Your task to perform on an android device: toggle sleep mode Image 0: 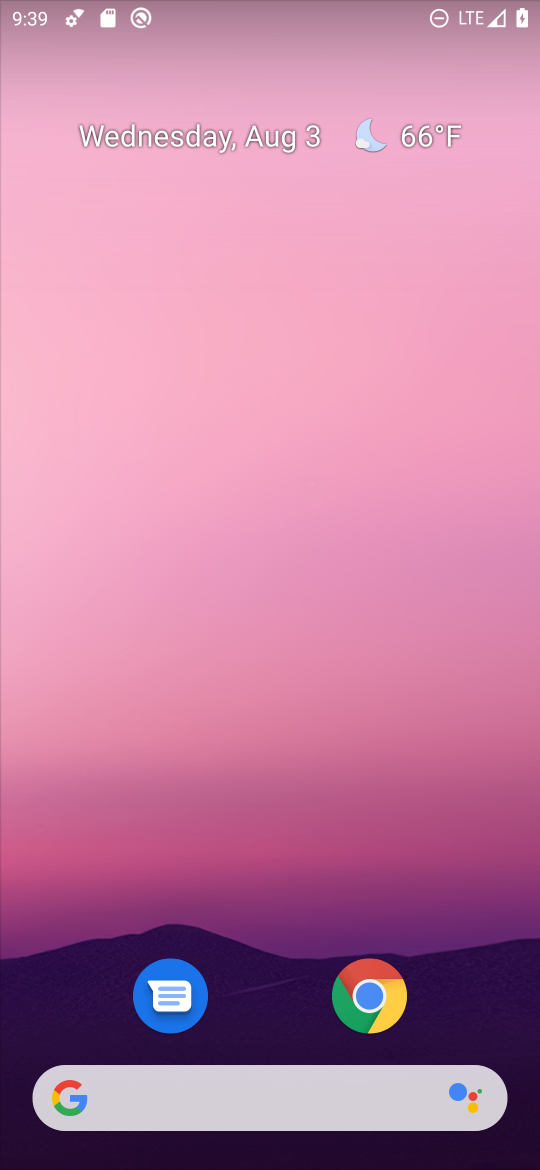
Step 0: drag from (313, 871) to (372, 16)
Your task to perform on an android device: toggle sleep mode Image 1: 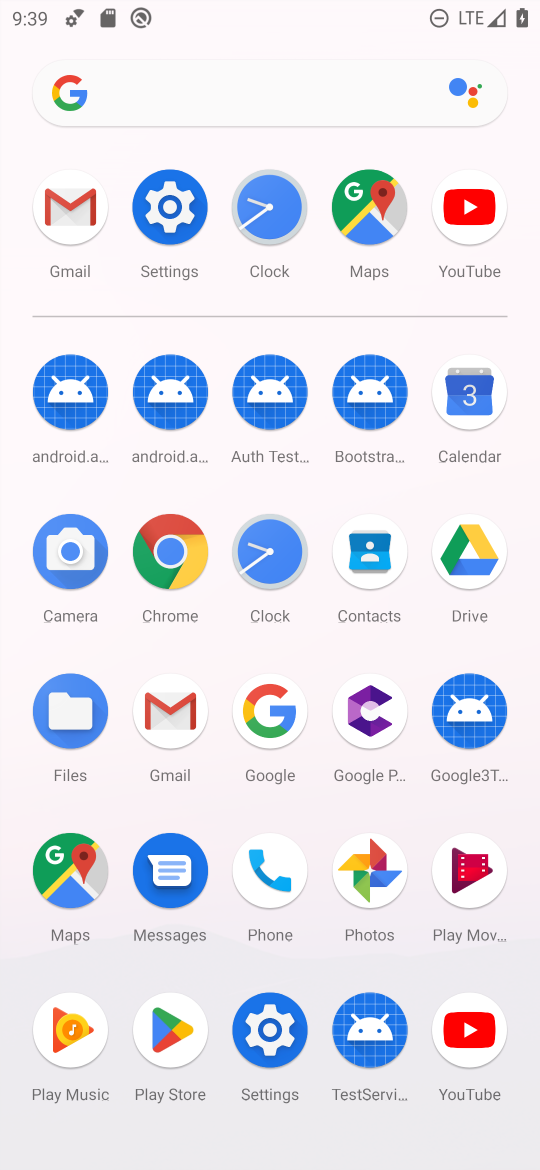
Step 1: click (169, 205)
Your task to perform on an android device: toggle sleep mode Image 2: 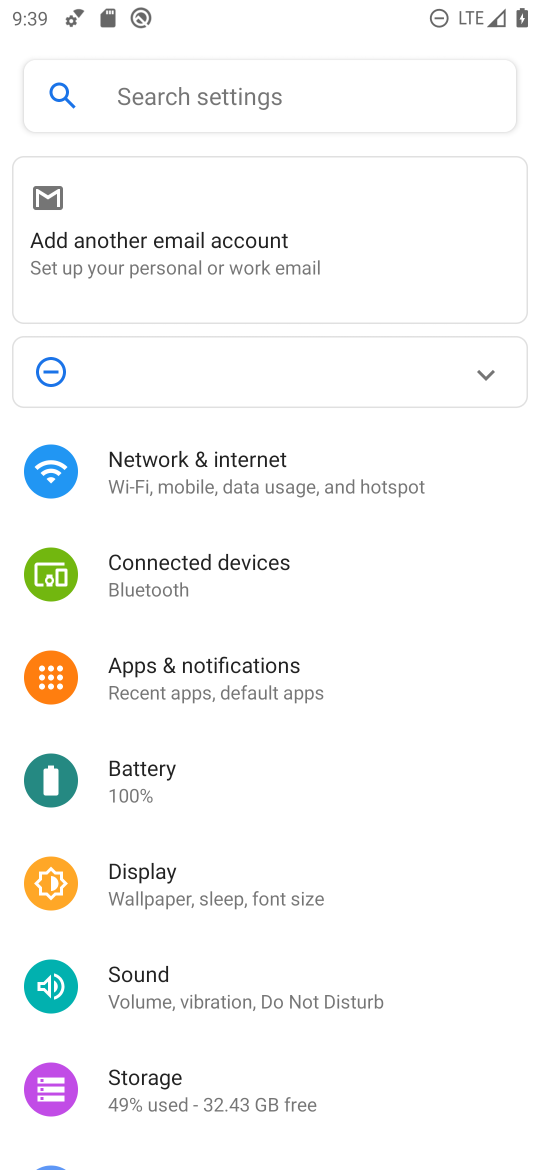
Step 2: click (178, 883)
Your task to perform on an android device: toggle sleep mode Image 3: 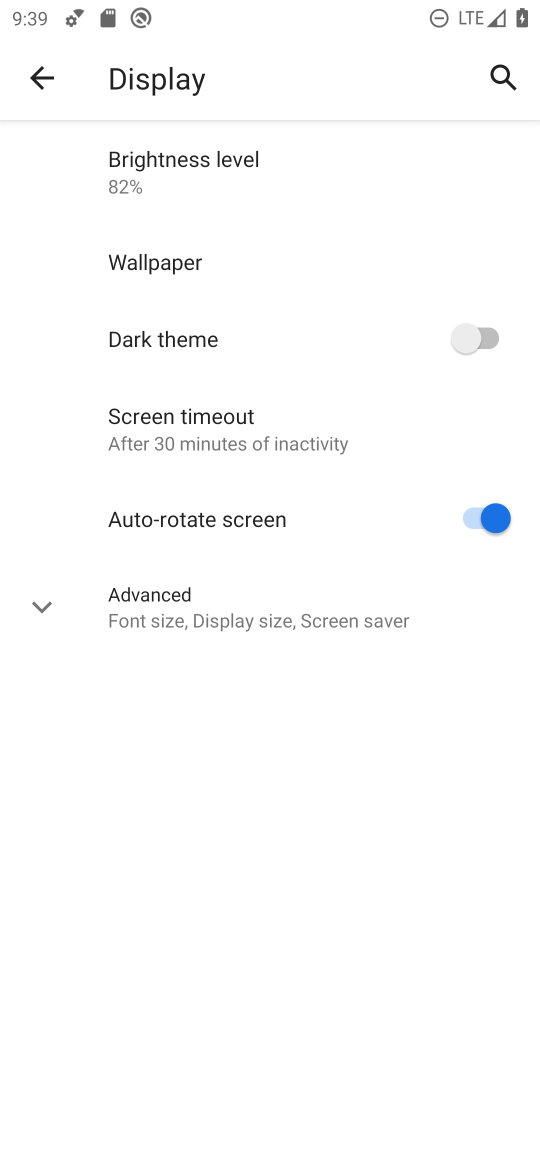
Step 3: click (45, 612)
Your task to perform on an android device: toggle sleep mode Image 4: 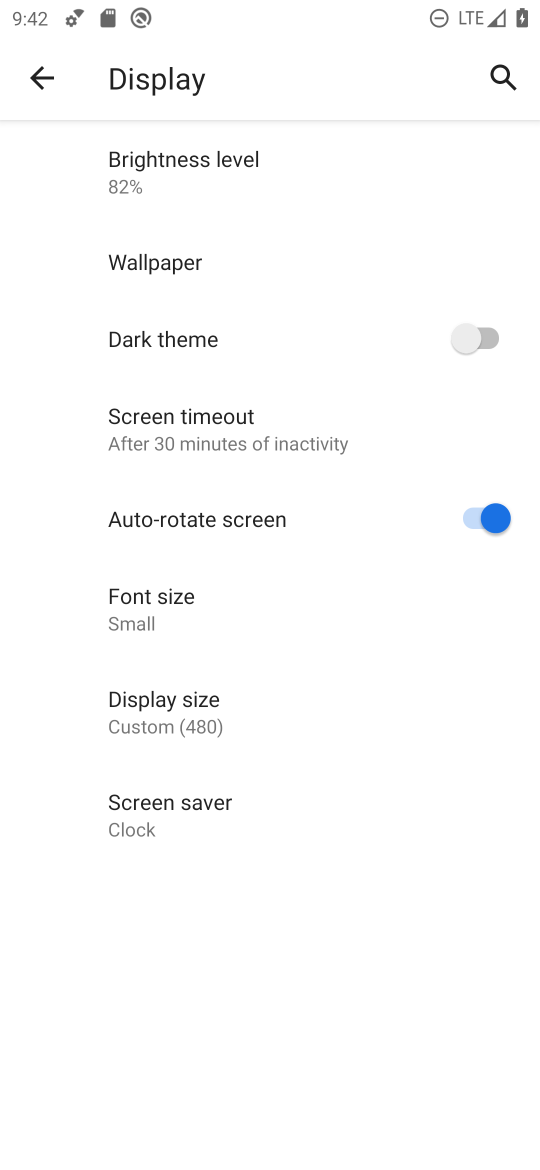
Step 4: task complete